Your task to perform on an android device: delete a single message in the gmail app Image 0: 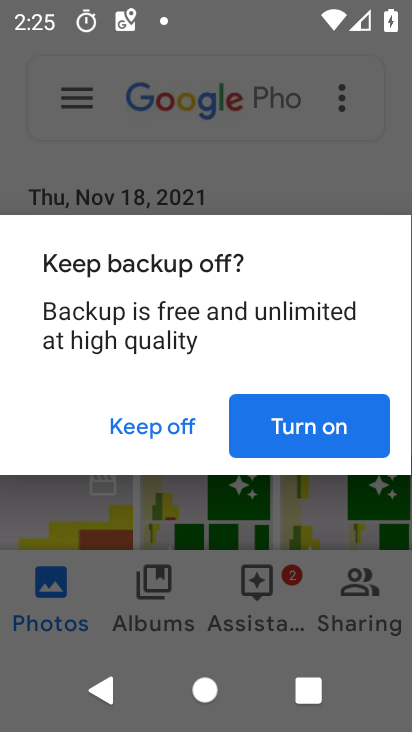
Step 0: press home button
Your task to perform on an android device: delete a single message in the gmail app Image 1: 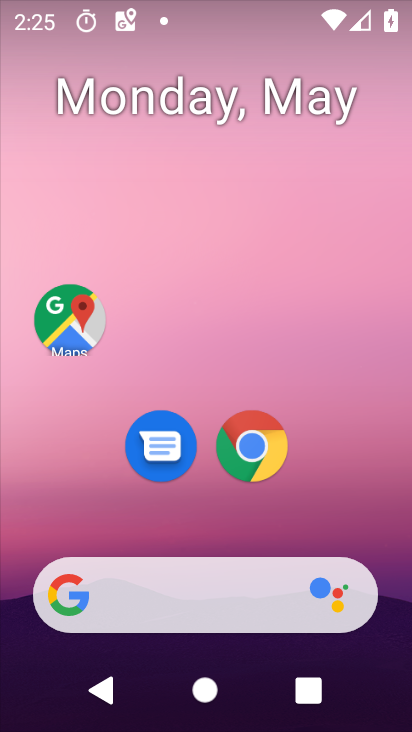
Step 1: drag from (226, 551) to (236, 17)
Your task to perform on an android device: delete a single message in the gmail app Image 2: 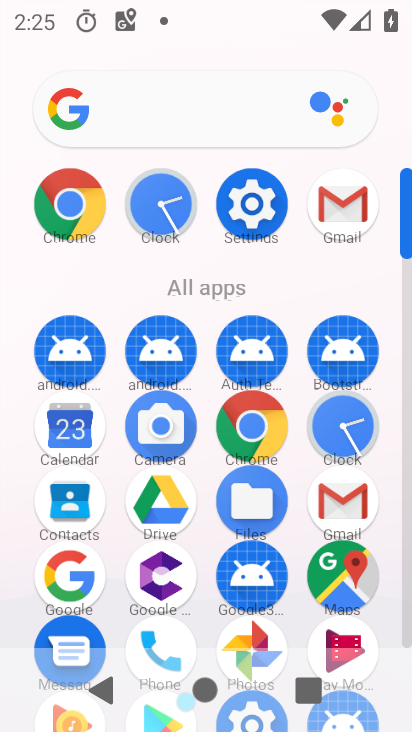
Step 2: click (333, 206)
Your task to perform on an android device: delete a single message in the gmail app Image 3: 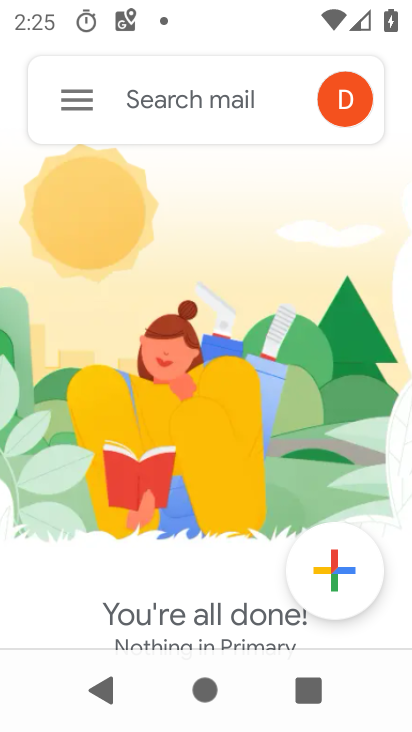
Step 3: click (87, 106)
Your task to perform on an android device: delete a single message in the gmail app Image 4: 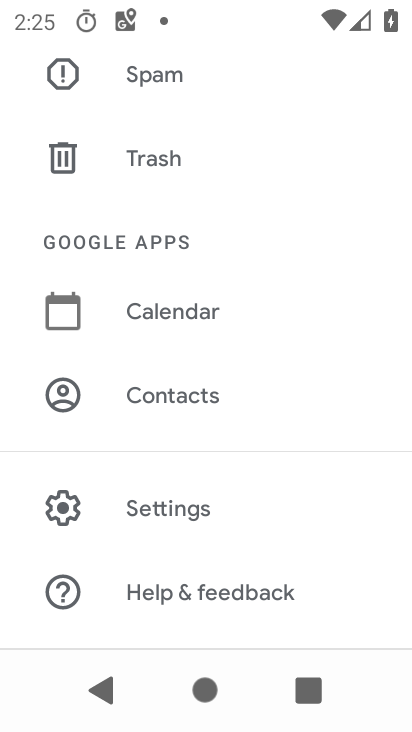
Step 4: press back button
Your task to perform on an android device: delete a single message in the gmail app Image 5: 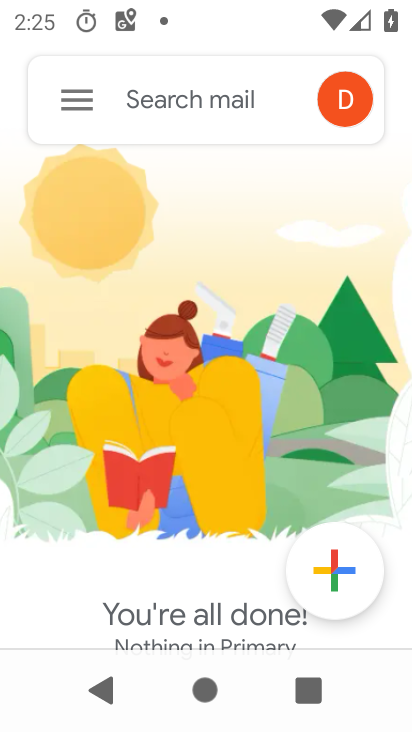
Step 5: click (100, 81)
Your task to perform on an android device: delete a single message in the gmail app Image 6: 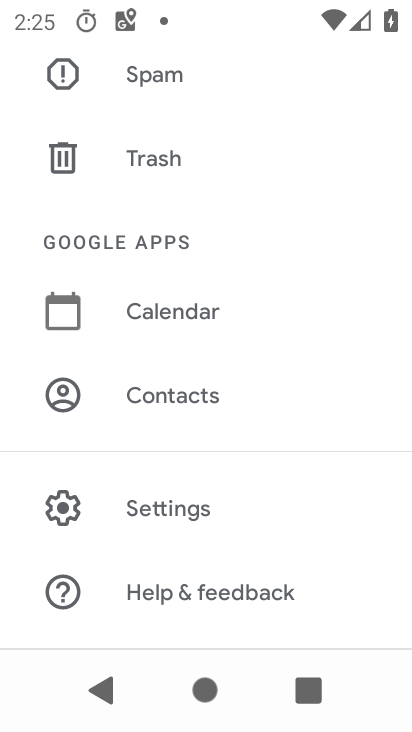
Step 6: drag from (155, 117) to (154, 440)
Your task to perform on an android device: delete a single message in the gmail app Image 7: 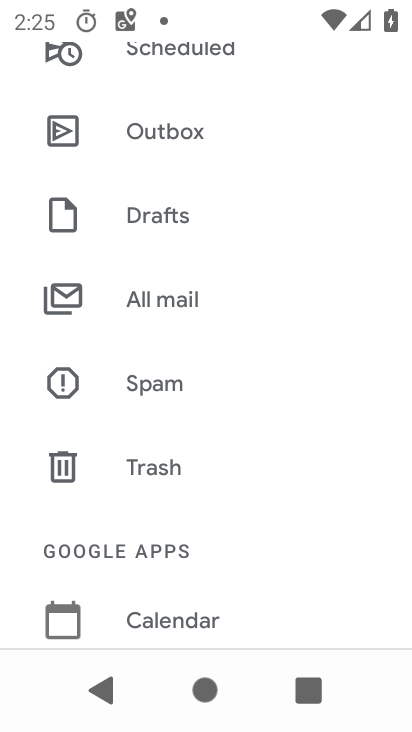
Step 7: click (168, 311)
Your task to perform on an android device: delete a single message in the gmail app Image 8: 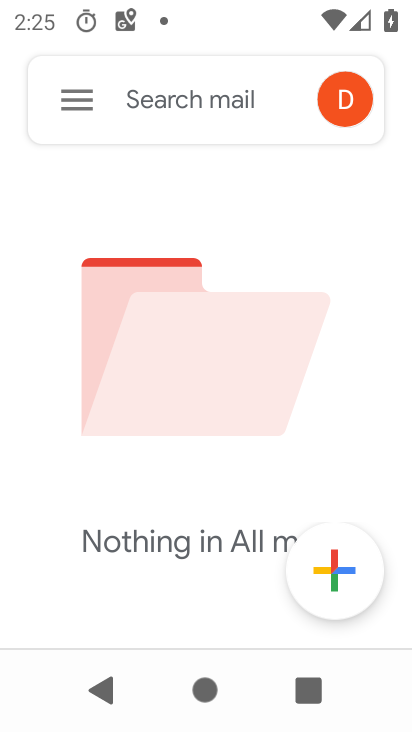
Step 8: task complete